Your task to perform on an android device: Open the map Image 0: 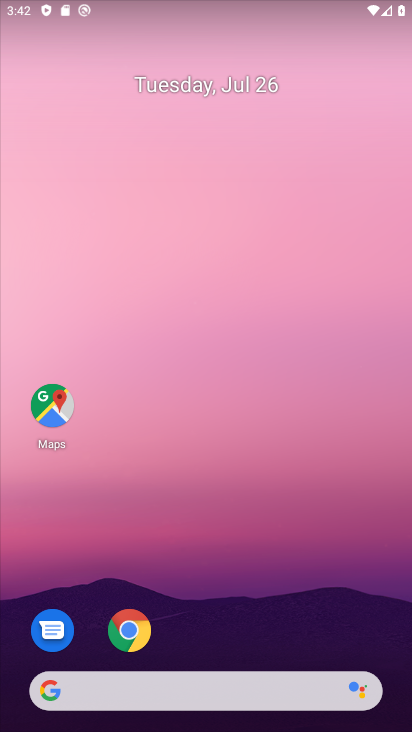
Step 0: drag from (250, 514) to (197, 61)
Your task to perform on an android device: Open the map Image 1: 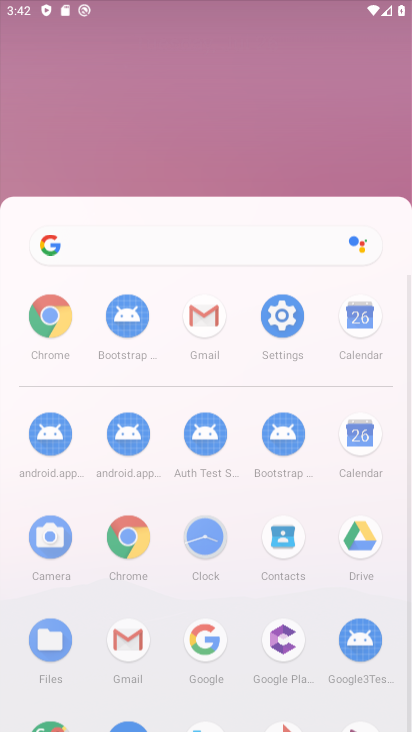
Step 1: drag from (222, 470) to (213, 188)
Your task to perform on an android device: Open the map Image 2: 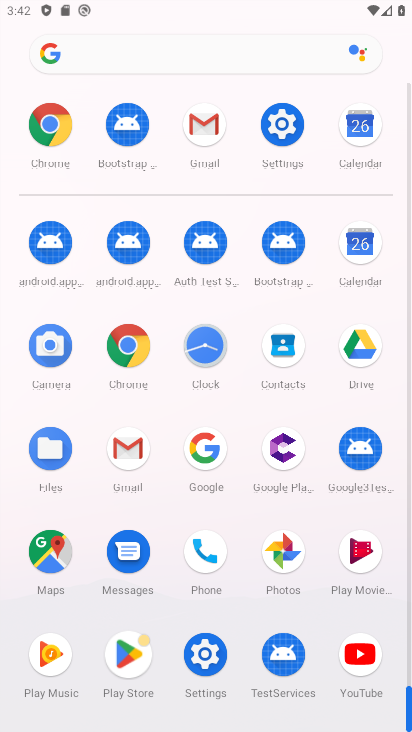
Step 2: drag from (231, 507) to (220, 91)
Your task to perform on an android device: Open the map Image 3: 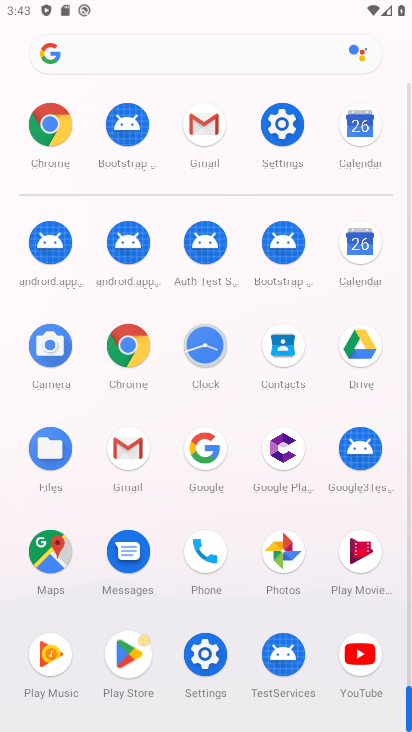
Step 3: click (42, 552)
Your task to perform on an android device: Open the map Image 4: 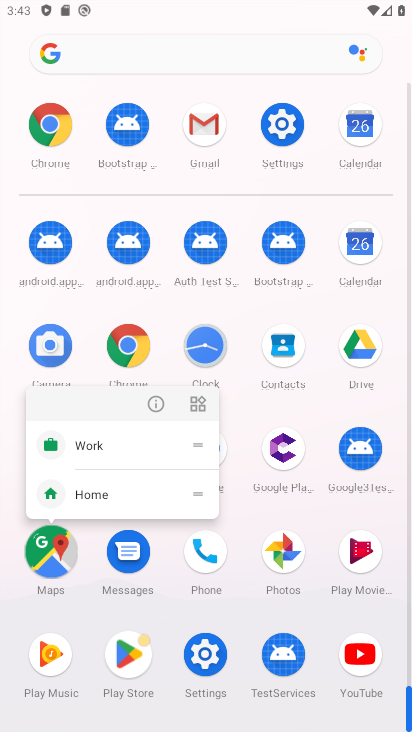
Step 4: click (44, 552)
Your task to perform on an android device: Open the map Image 5: 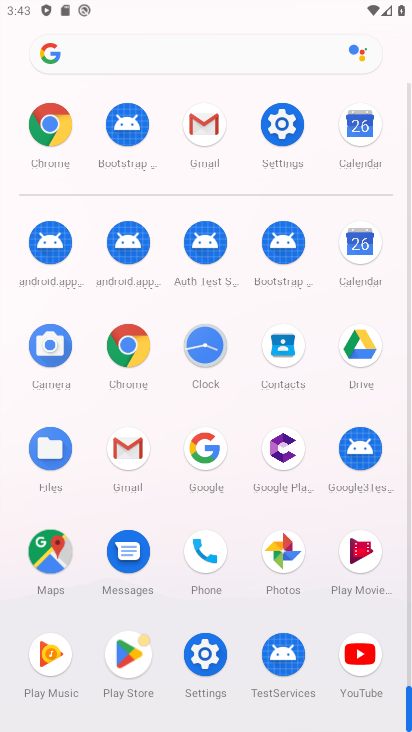
Step 5: click (50, 552)
Your task to perform on an android device: Open the map Image 6: 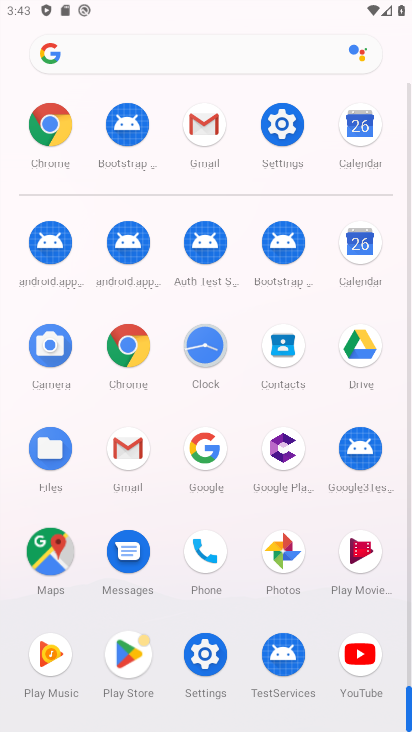
Step 6: click (54, 545)
Your task to perform on an android device: Open the map Image 7: 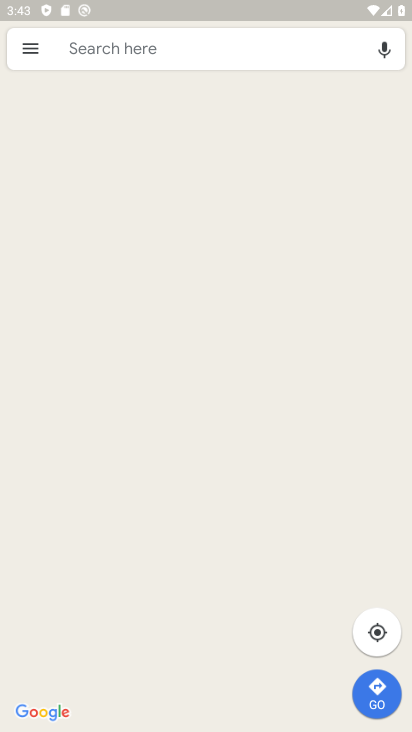
Step 7: task complete